Your task to perform on an android device: Open privacy settings Image 0: 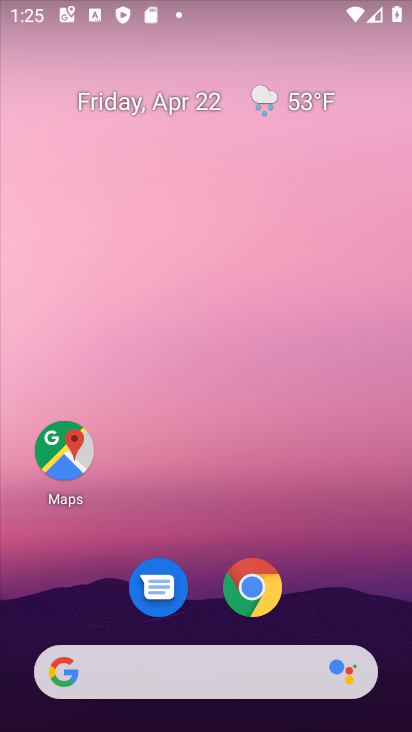
Step 0: drag from (198, 617) to (267, 160)
Your task to perform on an android device: Open privacy settings Image 1: 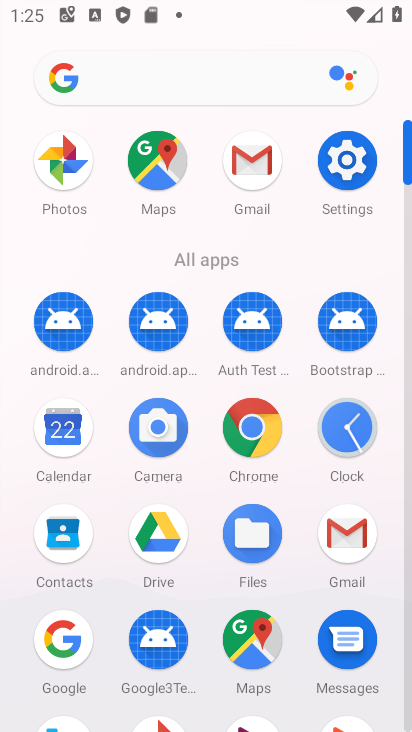
Step 1: click (344, 161)
Your task to perform on an android device: Open privacy settings Image 2: 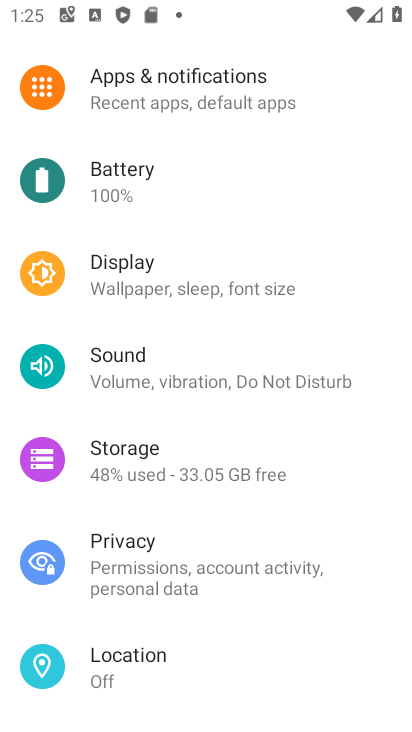
Step 2: click (180, 560)
Your task to perform on an android device: Open privacy settings Image 3: 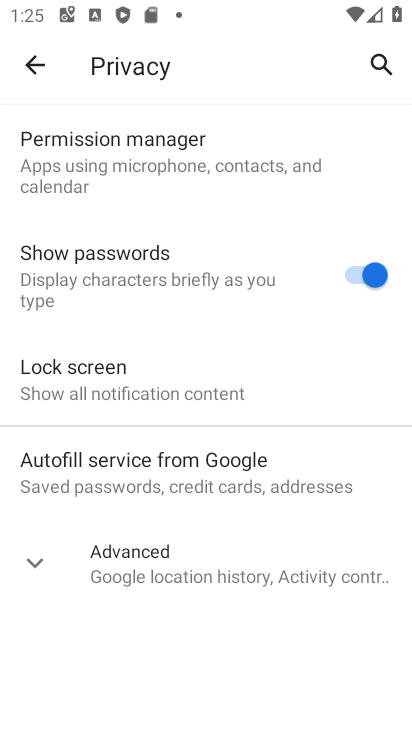
Step 3: task complete